Your task to perform on an android device: turn notification dots on Image 0: 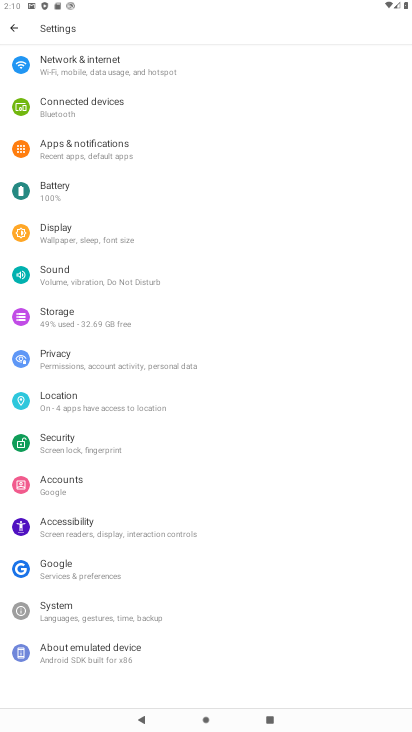
Step 0: click (120, 153)
Your task to perform on an android device: turn notification dots on Image 1: 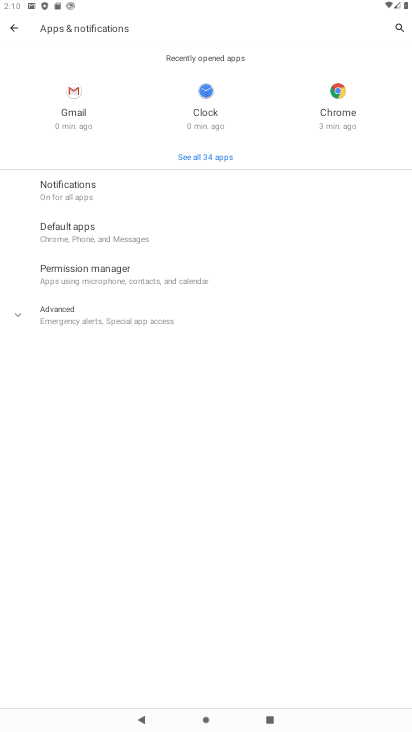
Step 1: click (46, 184)
Your task to perform on an android device: turn notification dots on Image 2: 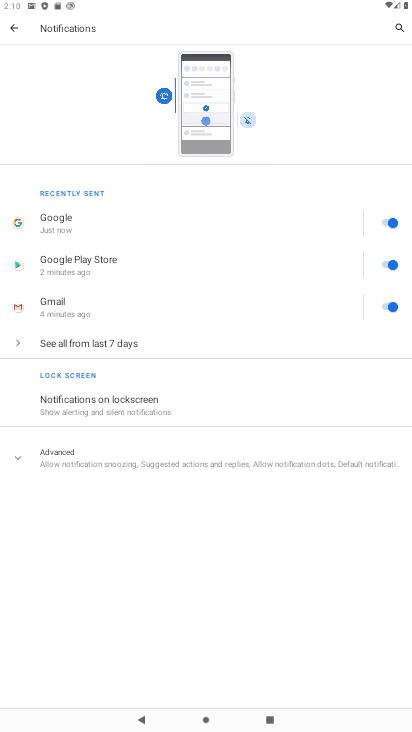
Step 2: click (148, 450)
Your task to perform on an android device: turn notification dots on Image 3: 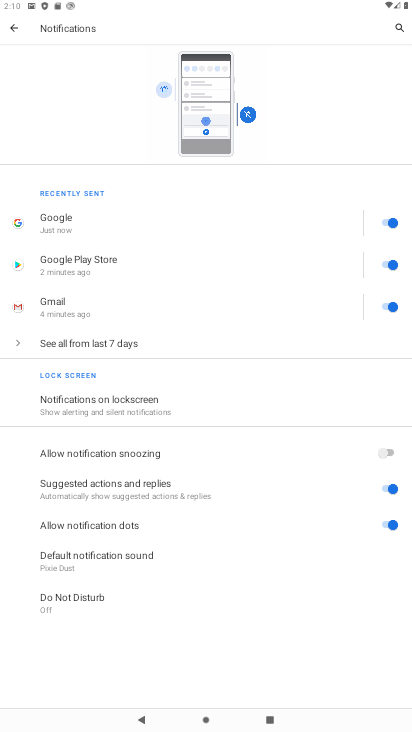
Step 3: task complete